Your task to perform on an android device: Go to Maps Image 0: 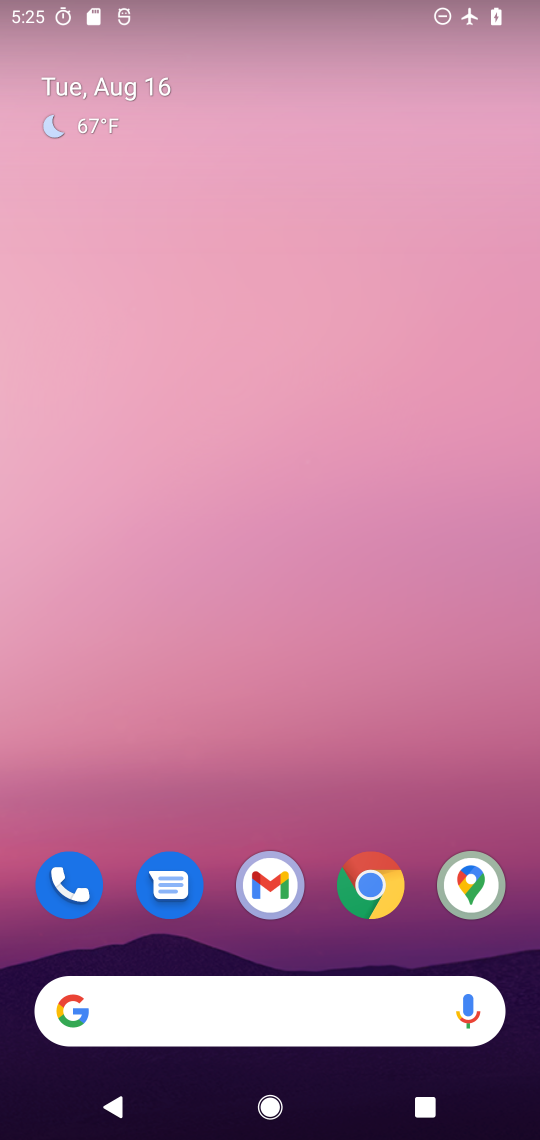
Step 0: click (452, 885)
Your task to perform on an android device: Go to Maps Image 1: 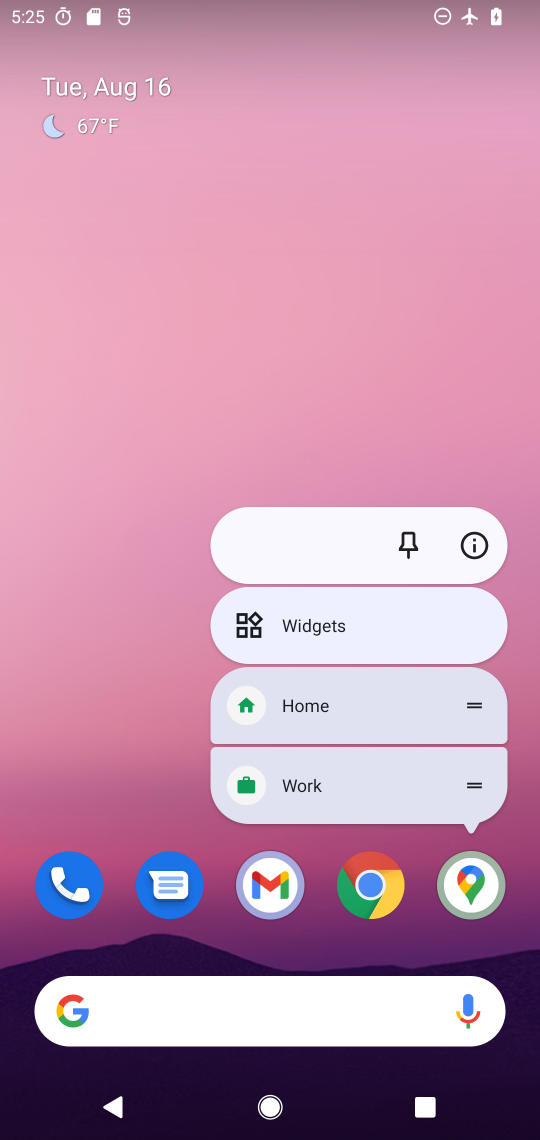
Step 1: click (483, 885)
Your task to perform on an android device: Go to Maps Image 2: 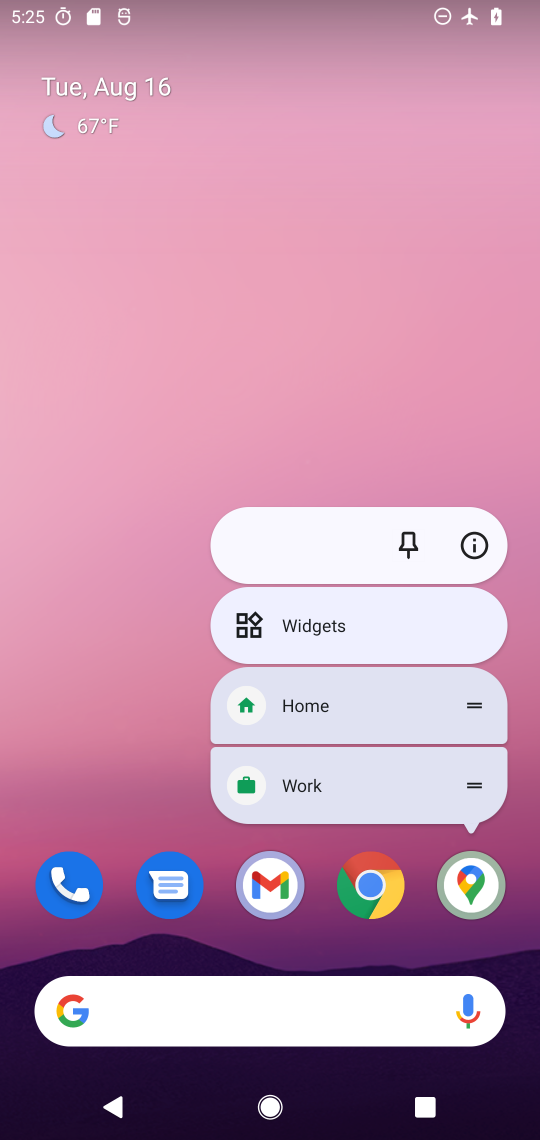
Step 2: click (480, 882)
Your task to perform on an android device: Go to Maps Image 3: 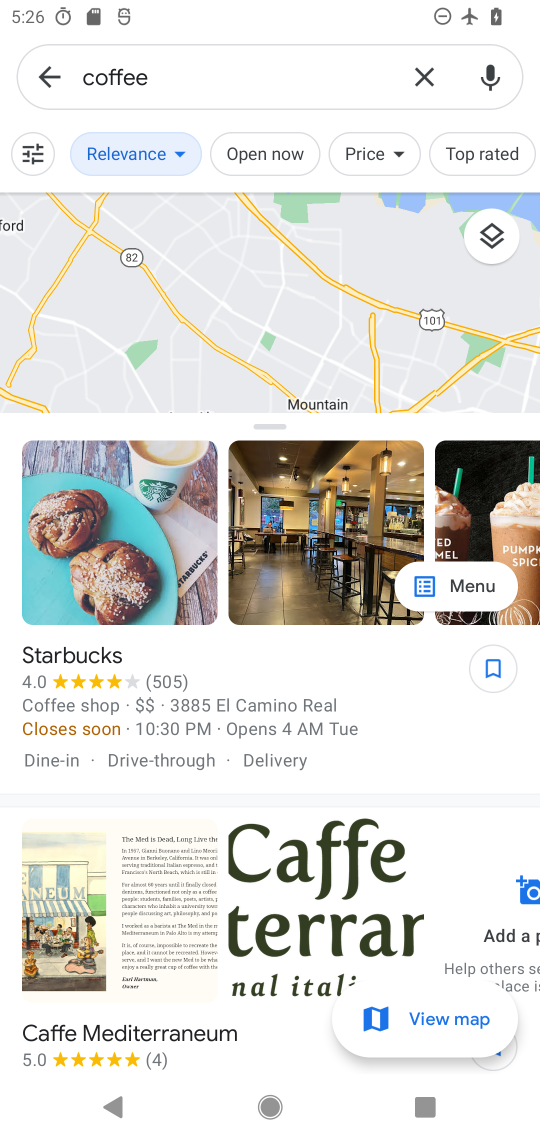
Step 3: task complete